Your task to perform on an android device: remove spam from my inbox in the gmail app Image 0: 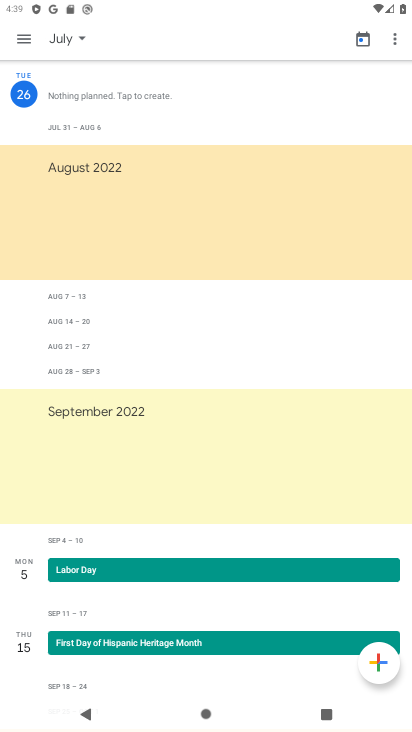
Step 0: press home button
Your task to perform on an android device: remove spam from my inbox in the gmail app Image 1: 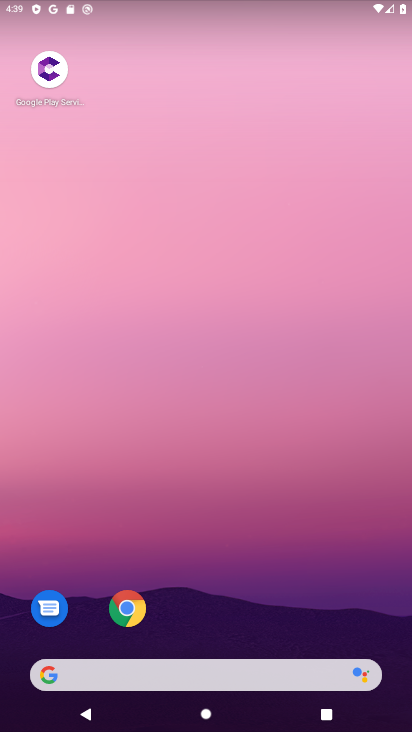
Step 1: drag from (189, 657) to (219, 120)
Your task to perform on an android device: remove spam from my inbox in the gmail app Image 2: 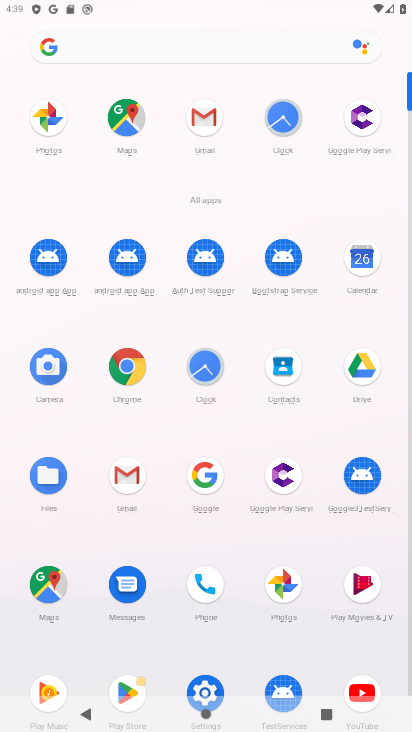
Step 2: click (206, 118)
Your task to perform on an android device: remove spam from my inbox in the gmail app Image 3: 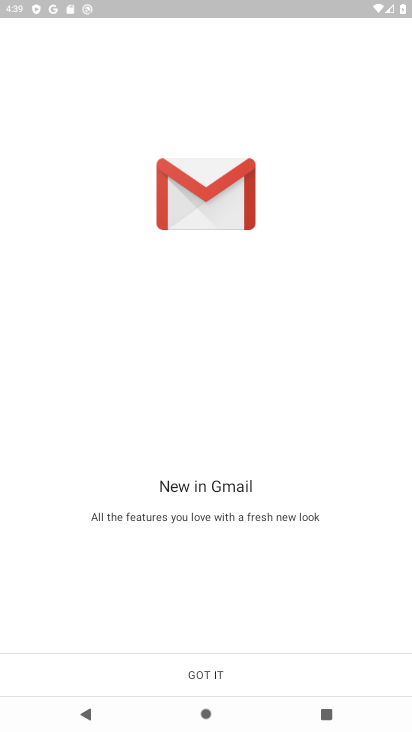
Step 3: click (187, 681)
Your task to perform on an android device: remove spam from my inbox in the gmail app Image 4: 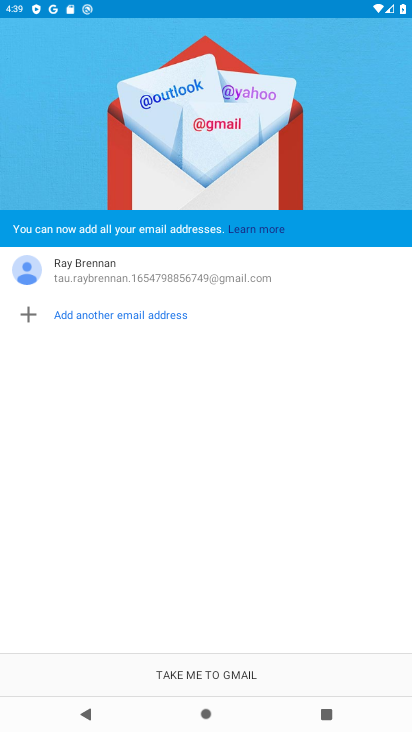
Step 4: click (181, 676)
Your task to perform on an android device: remove spam from my inbox in the gmail app Image 5: 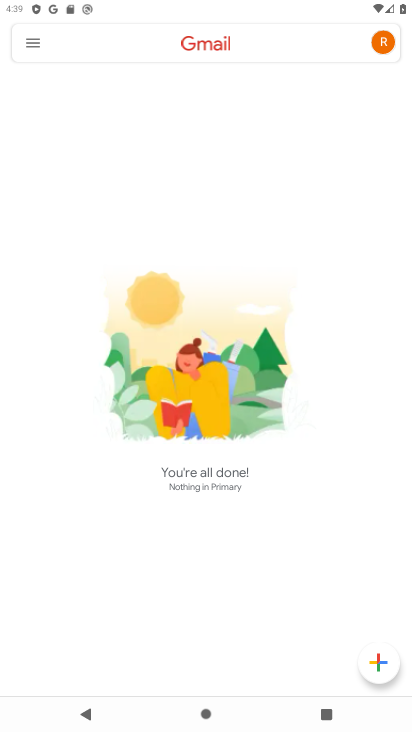
Step 5: click (32, 47)
Your task to perform on an android device: remove spam from my inbox in the gmail app Image 6: 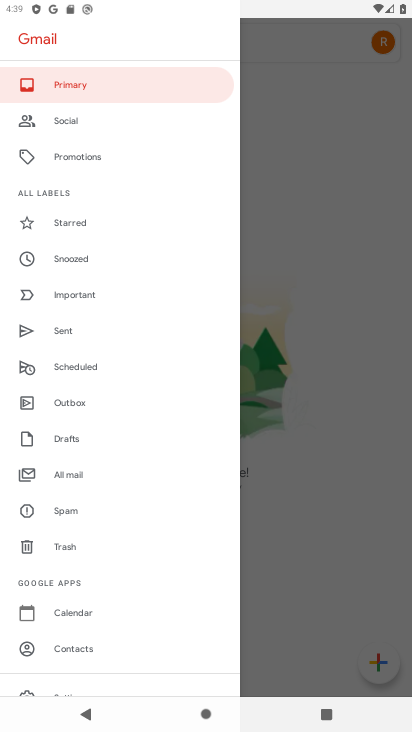
Step 6: click (64, 514)
Your task to perform on an android device: remove spam from my inbox in the gmail app Image 7: 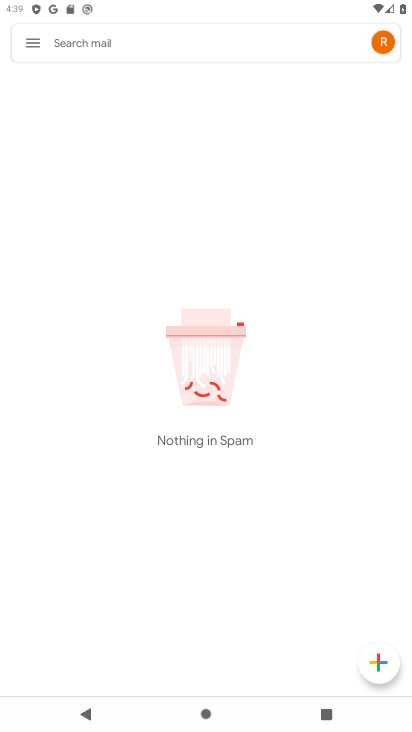
Step 7: task complete